Your task to perform on an android device: Open Youtube and go to the subscriptions tab Image 0: 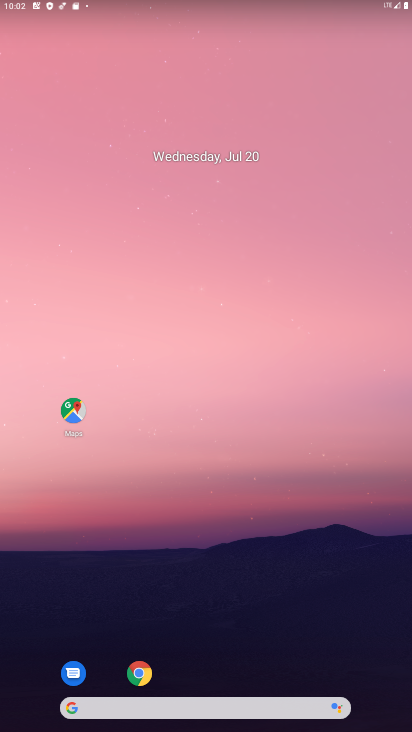
Step 0: drag from (192, 704) to (273, 1)
Your task to perform on an android device: Open Youtube and go to the subscriptions tab Image 1: 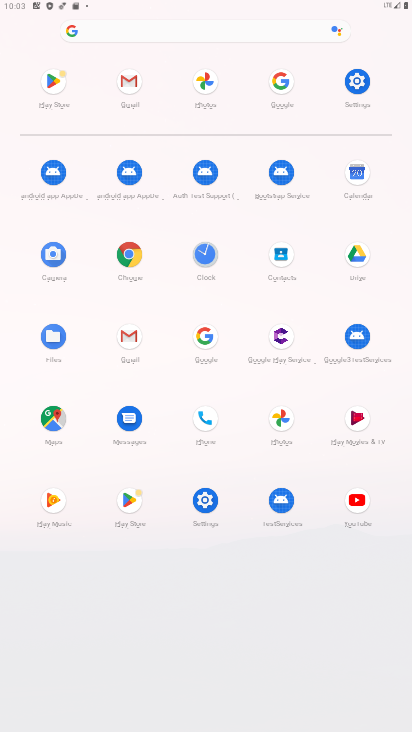
Step 1: click (358, 498)
Your task to perform on an android device: Open Youtube and go to the subscriptions tab Image 2: 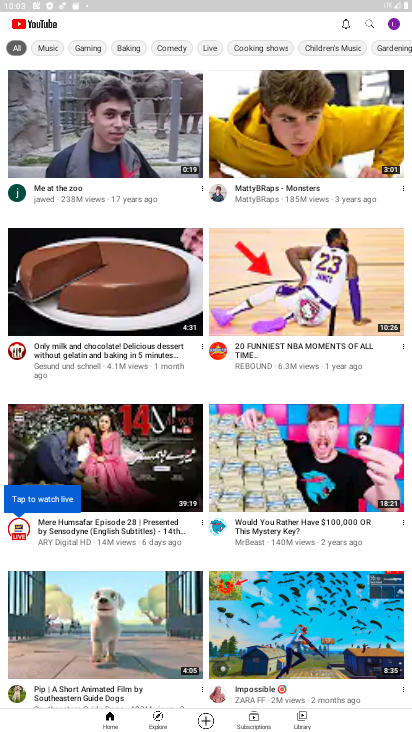
Step 2: click (253, 719)
Your task to perform on an android device: Open Youtube and go to the subscriptions tab Image 3: 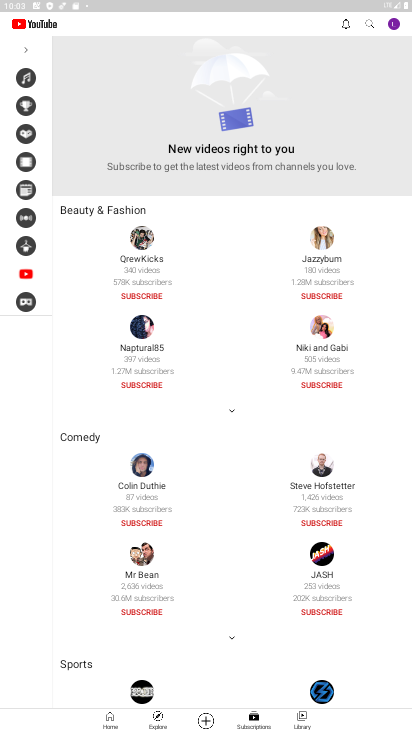
Step 3: task complete